Your task to perform on an android device: Do I have any events today? Image 0: 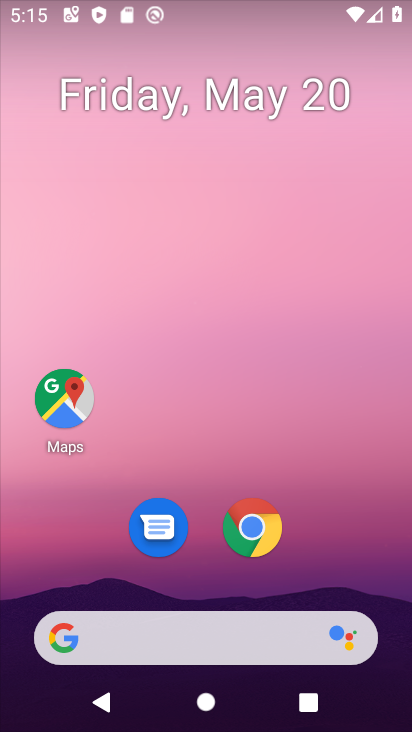
Step 0: drag from (309, 544) to (336, 13)
Your task to perform on an android device: Do I have any events today? Image 1: 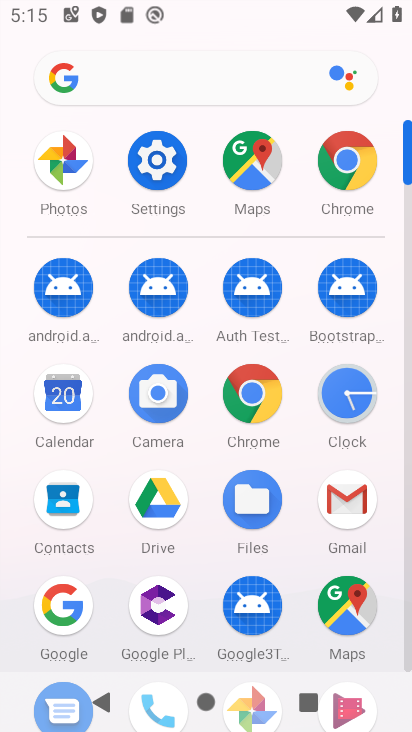
Step 1: click (69, 401)
Your task to perform on an android device: Do I have any events today? Image 2: 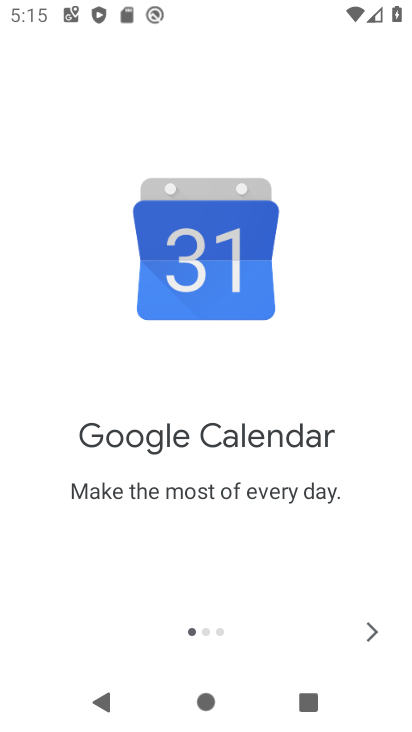
Step 2: click (367, 634)
Your task to perform on an android device: Do I have any events today? Image 3: 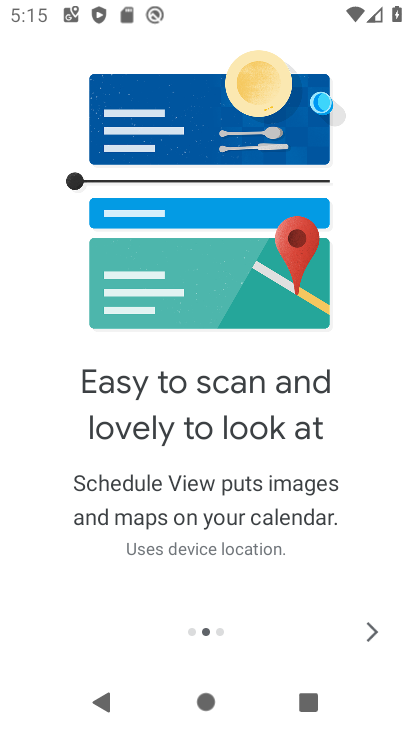
Step 3: click (370, 622)
Your task to perform on an android device: Do I have any events today? Image 4: 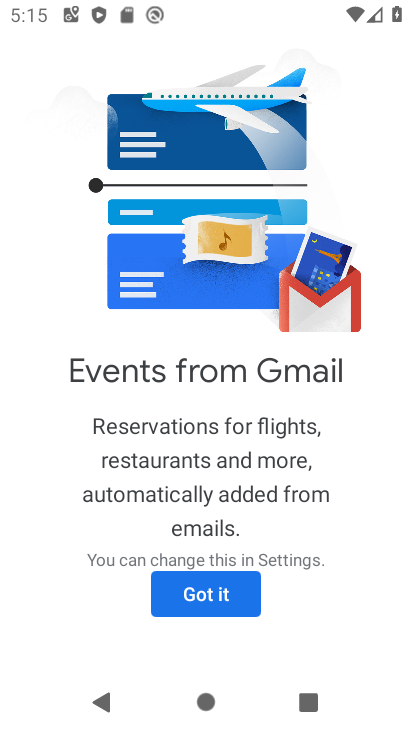
Step 4: click (370, 622)
Your task to perform on an android device: Do I have any events today? Image 5: 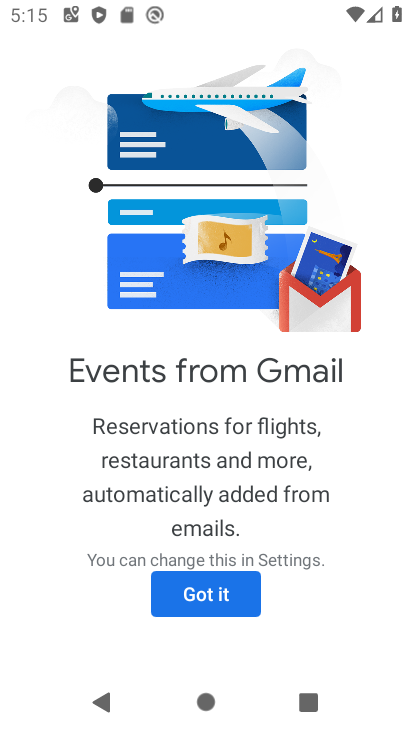
Step 5: click (248, 601)
Your task to perform on an android device: Do I have any events today? Image 6: 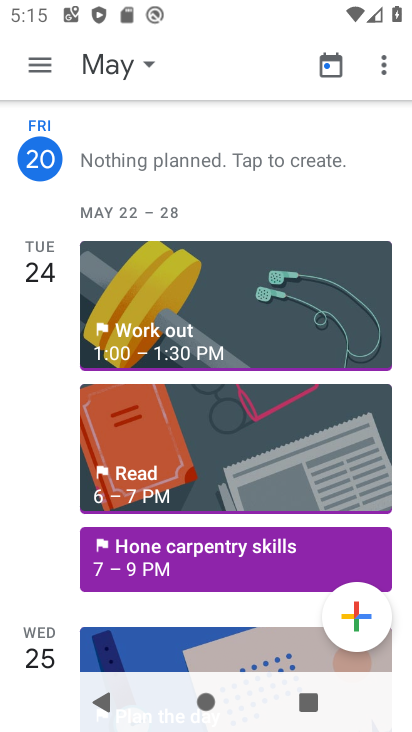
Step 6: click (146, 68)
Your task to perform on an android device: Do I have any events today? Image 7: 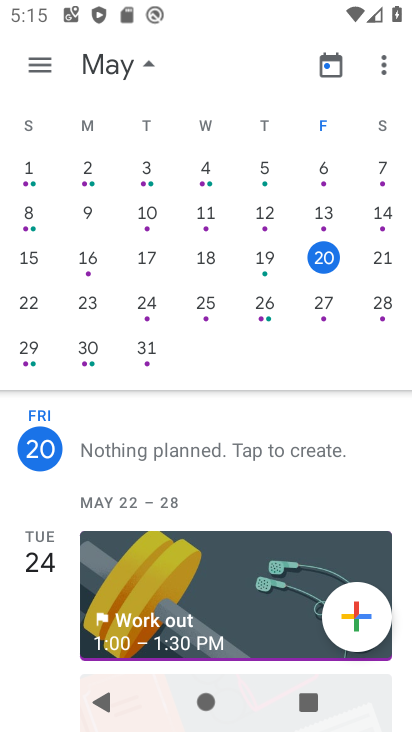
Step 7: task complete